Your task to perform on an android device: set the timer Image 0: 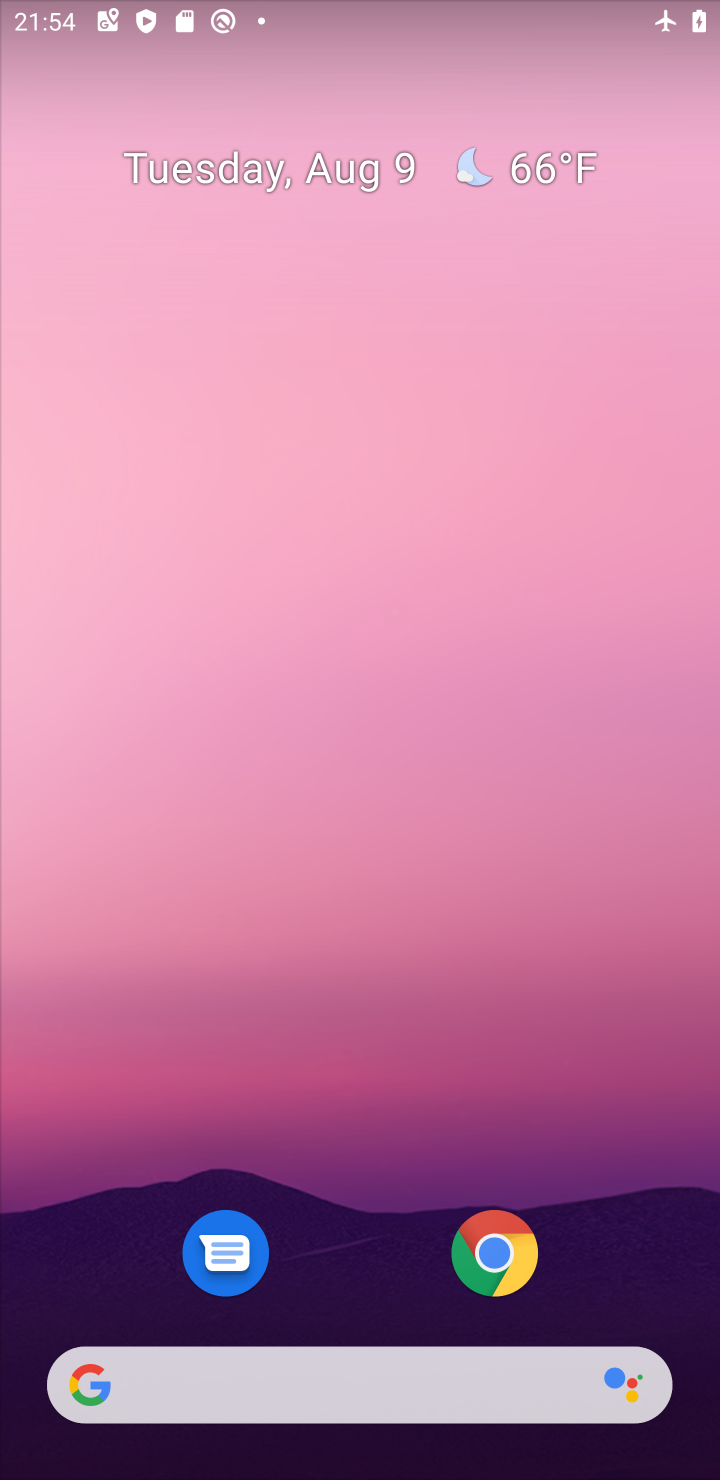
Step 0: click (716, 990)
Your task to perform on an android device: set the timer Image 1: 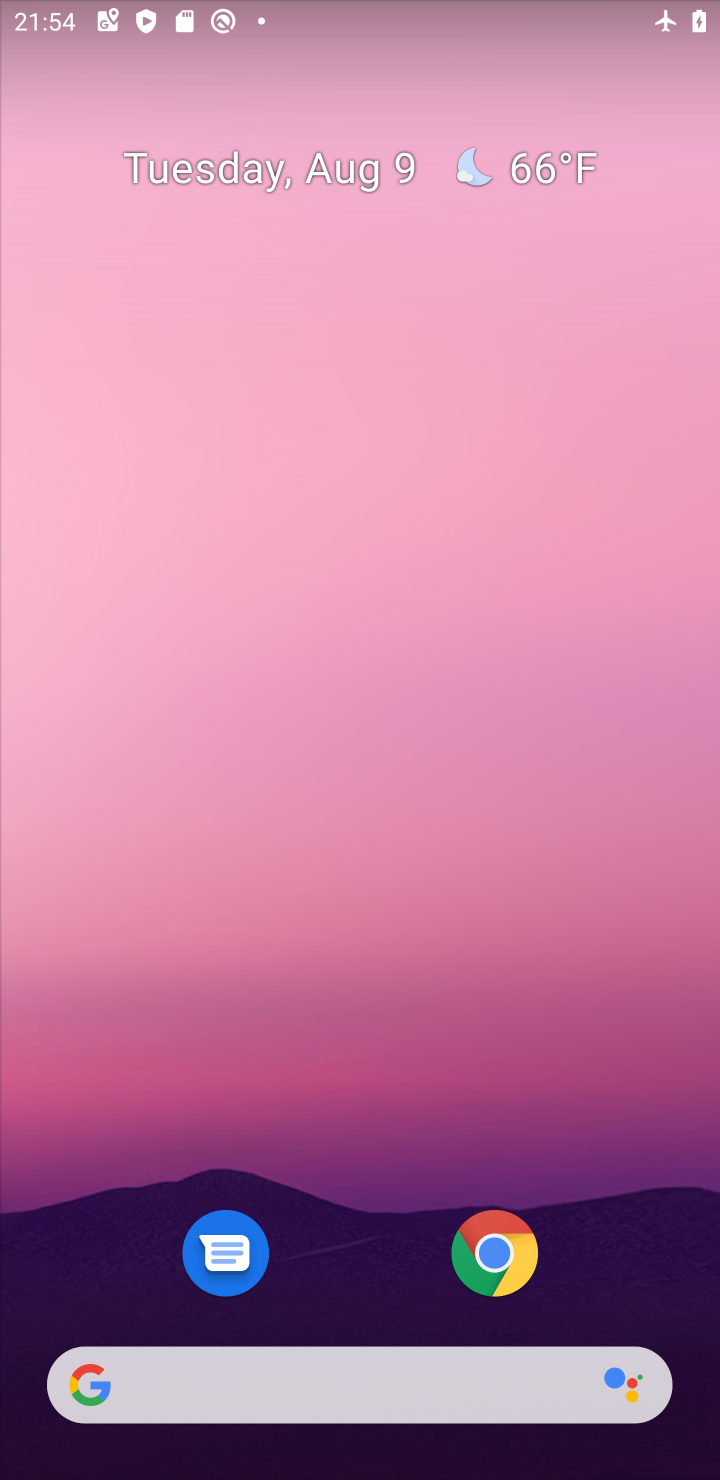
Step 1: drag from (357, 1179) to (543, 43)
Your task to perform on an android device: set the timer Image 2: 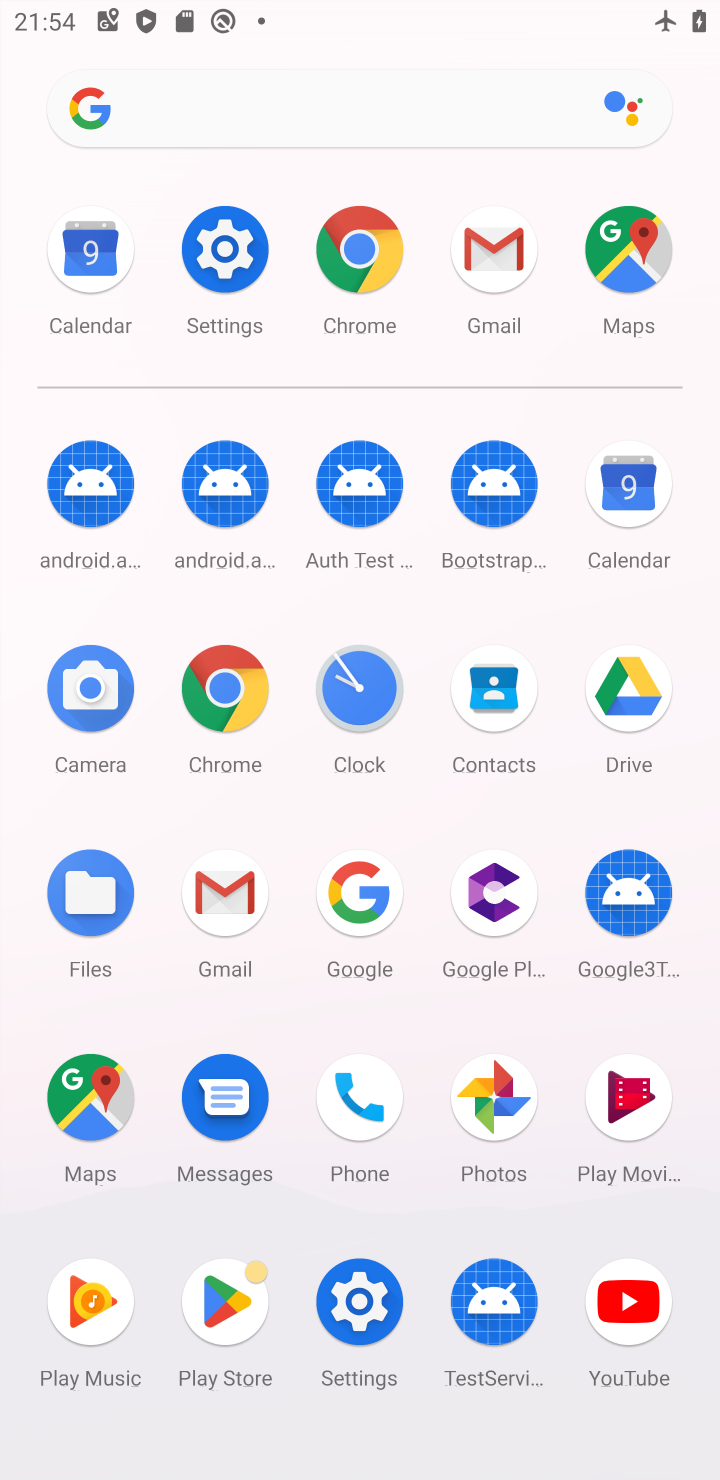
Step 2: click (367, 673)
Your task to perform on an android device: set the timer Image 3: 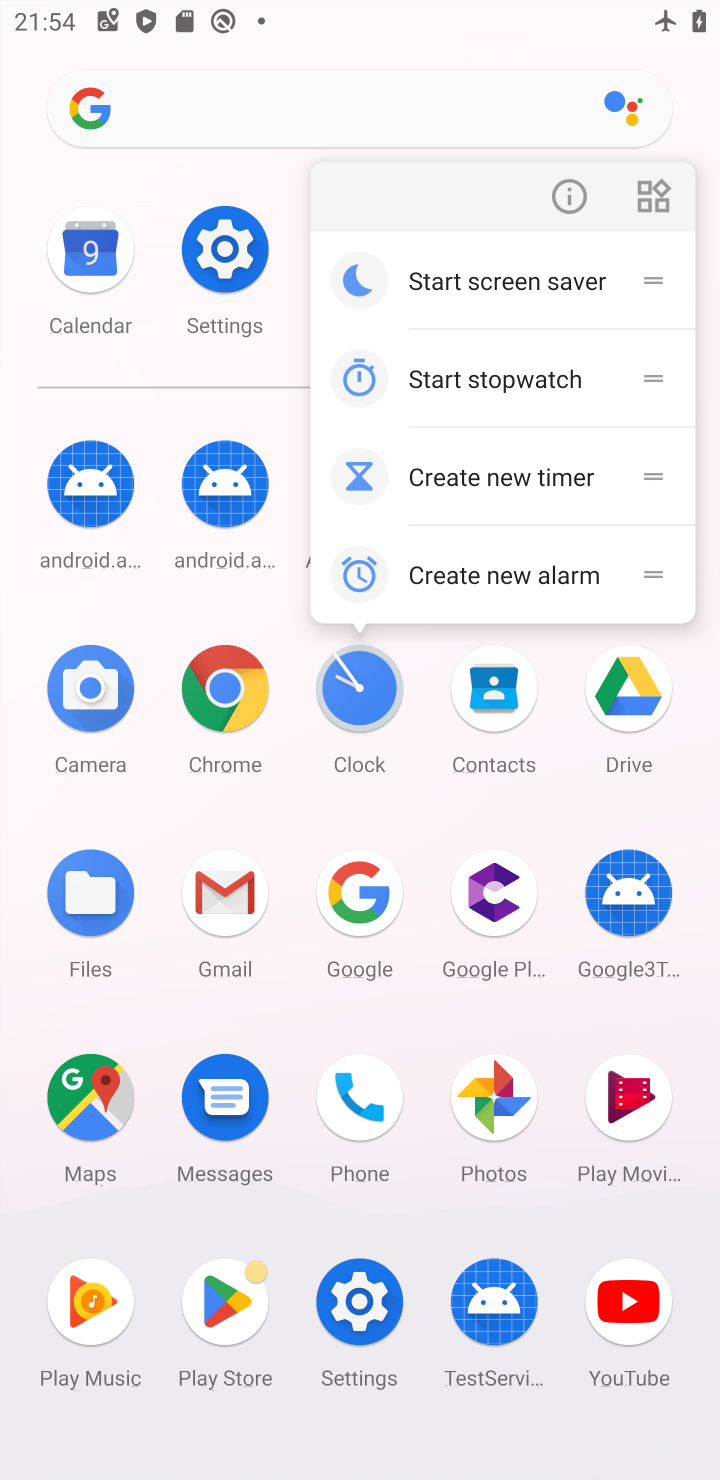
Step 3: click (361, 692)
Your task to perform on an android device: set the timer Image 4: 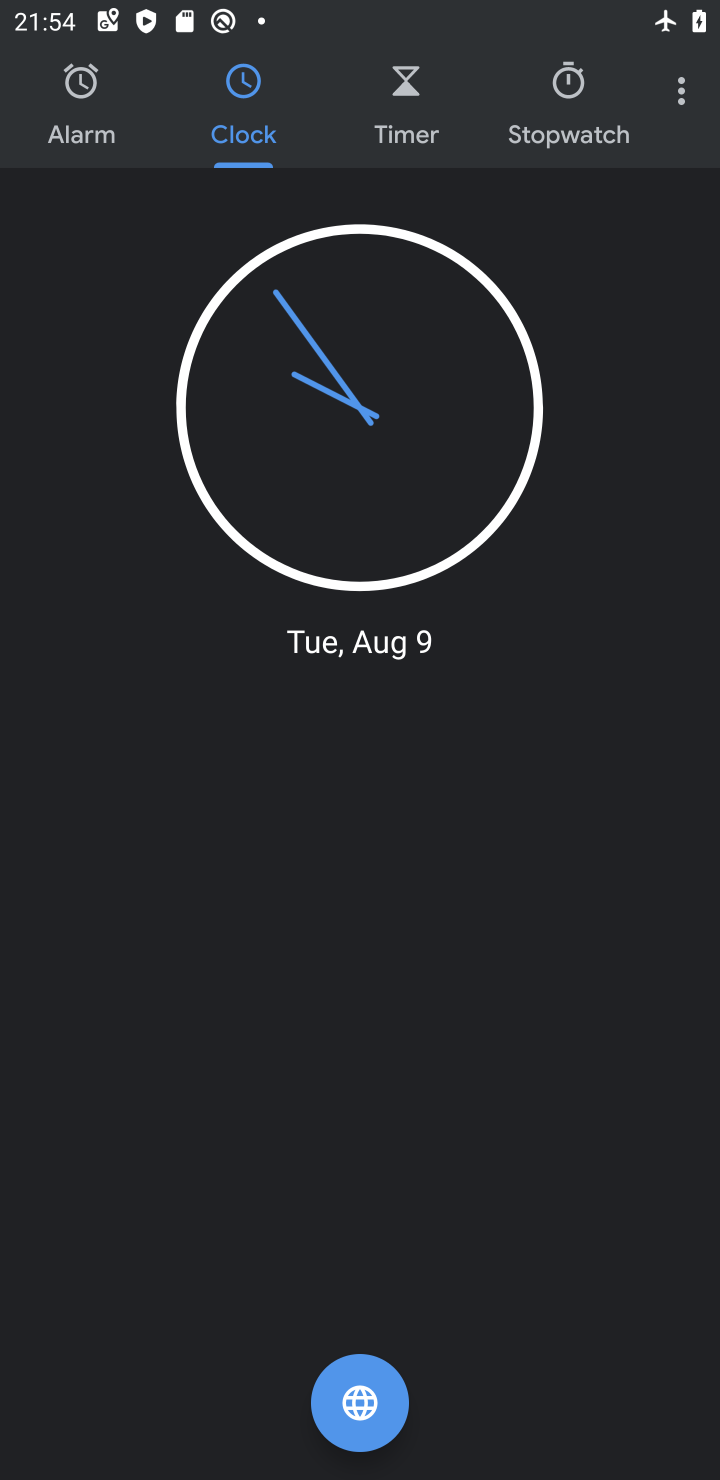
Step 4: click (449, 114)
Your task to perform on an android device: set the timer Image 5: 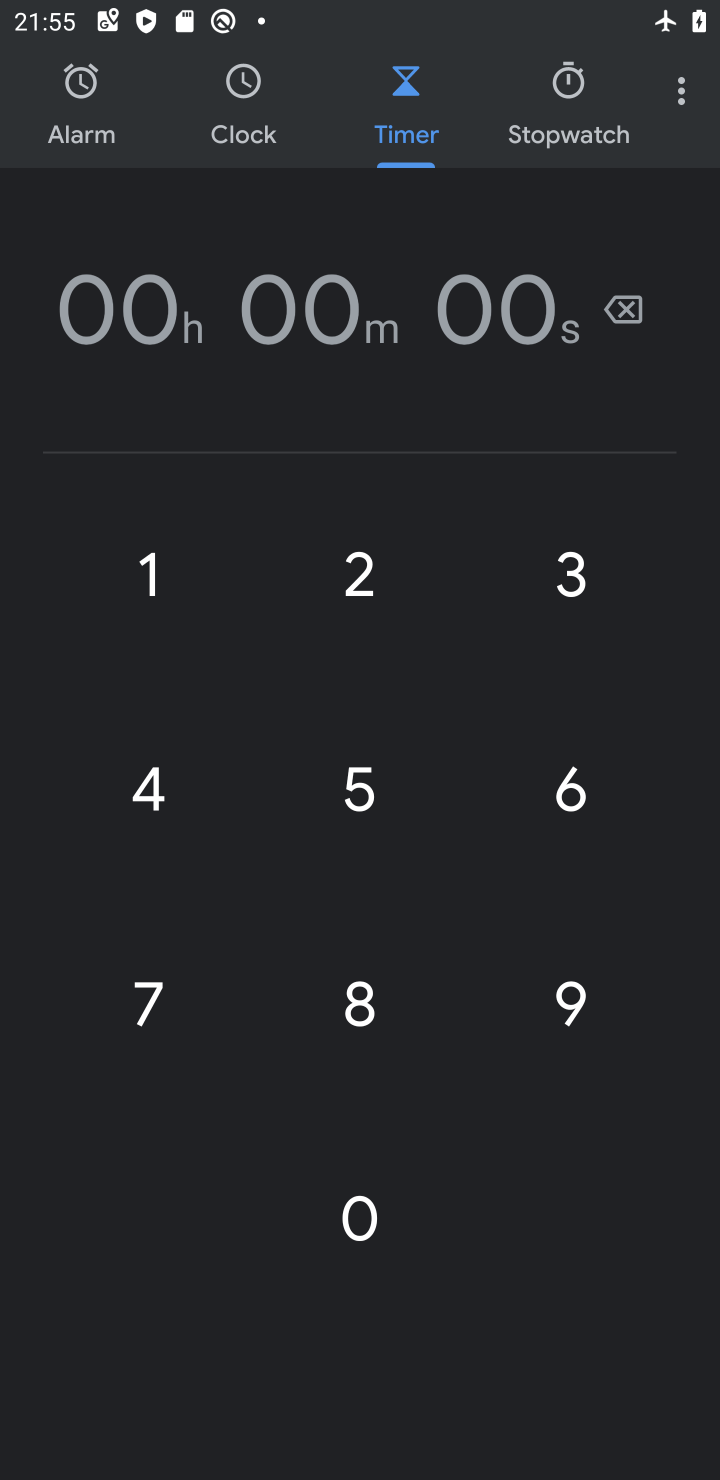
Step 5: click (344, 796)
Your task to perform on an android device: set the timer Image 6: 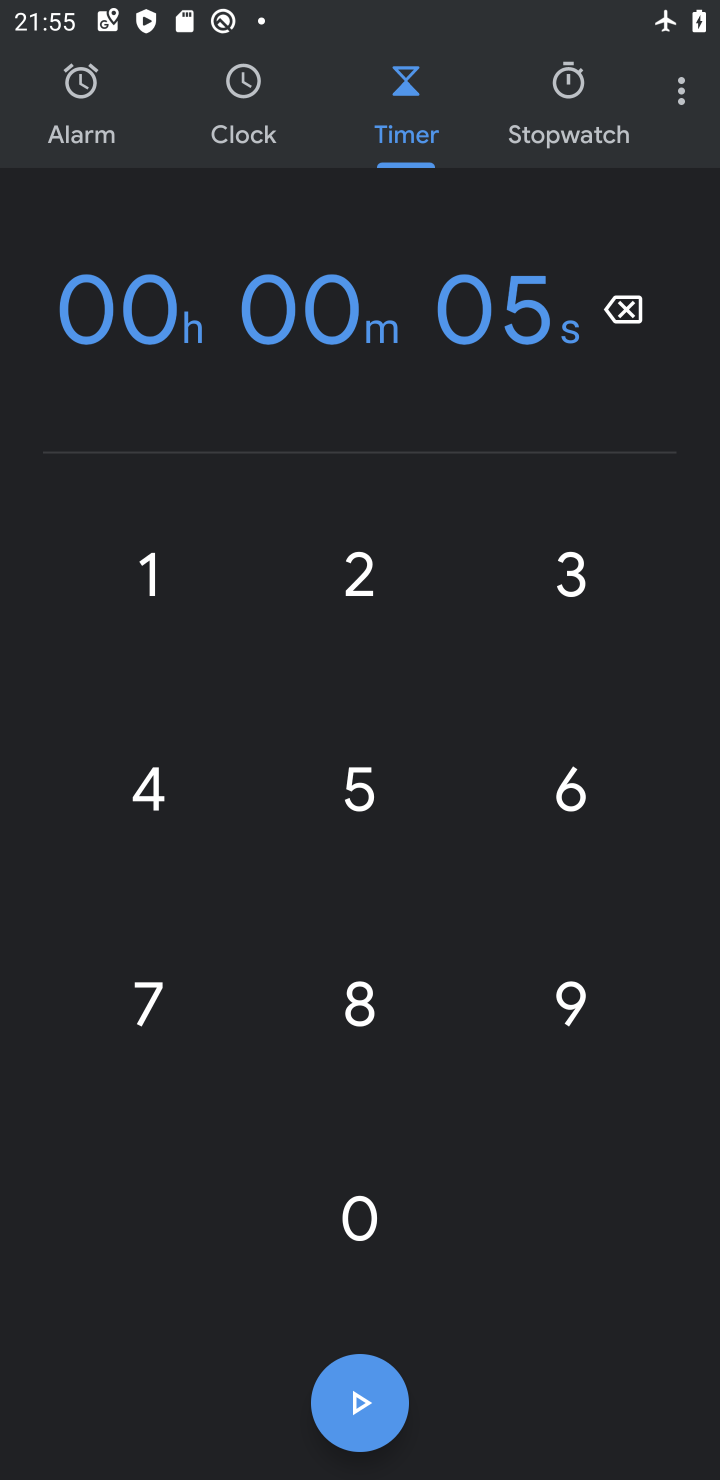
Step 6: task complete